Your task to perform on an android device: Open Amazon Image 0: 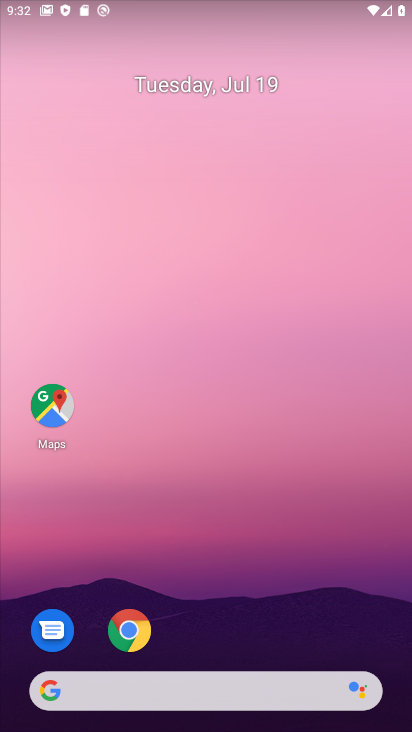
Step 0: click (143, 638)
Your task to perform on an android device: Open Amazon Image 1: 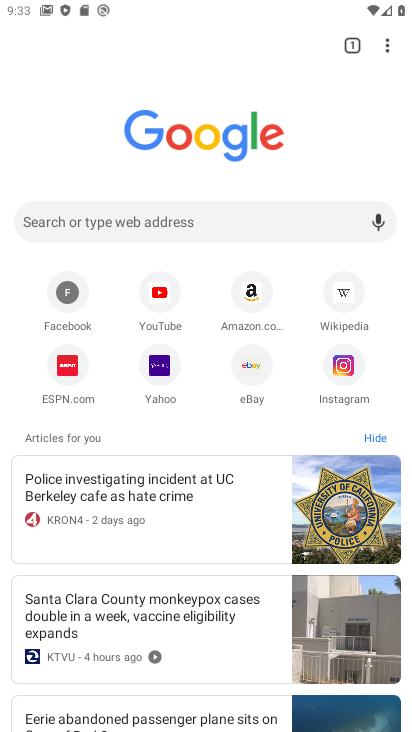
Step 1: click (254, 297)
Your task to perform on an android device: Open Amazon Image 2: 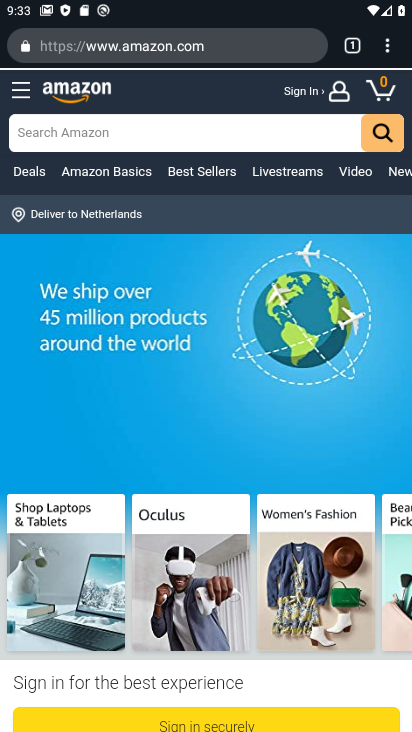
Step 2: task complete